Your task to perform on an android device: Check the news Image 0: 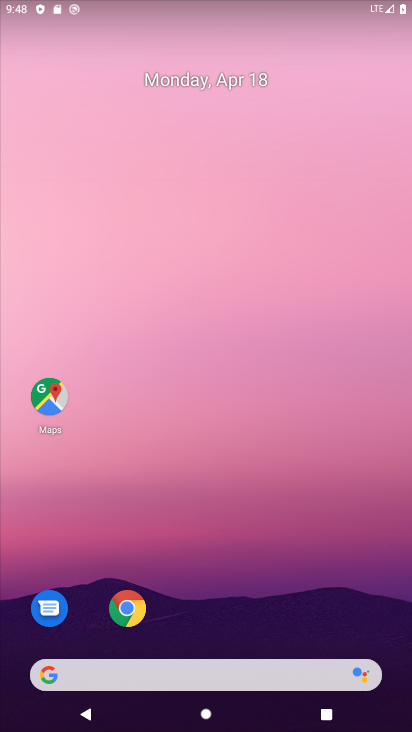
Step 0: drag from (215, 550) to (233, 96)
Your task to perform on an android device: Check the news Image 1: 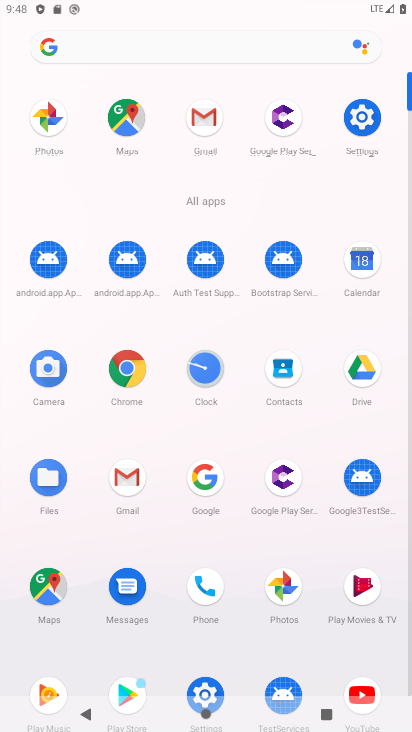
Step 1: click (206, 485)
Your task to perform on an android device: Check the news Image 2: 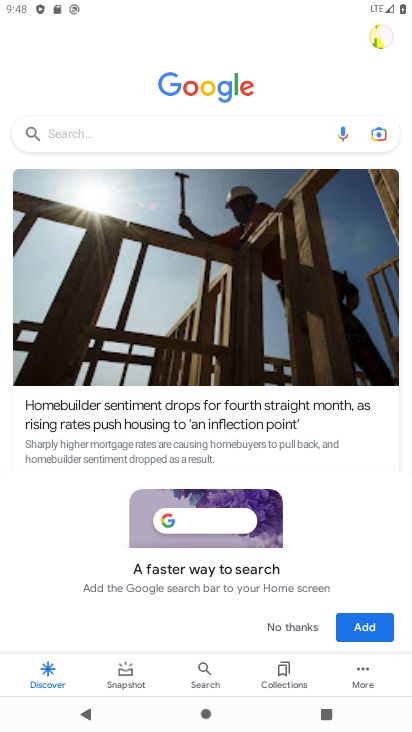
Step 2: task complete